Your task to perform on an android device: Go to settings Image 0: 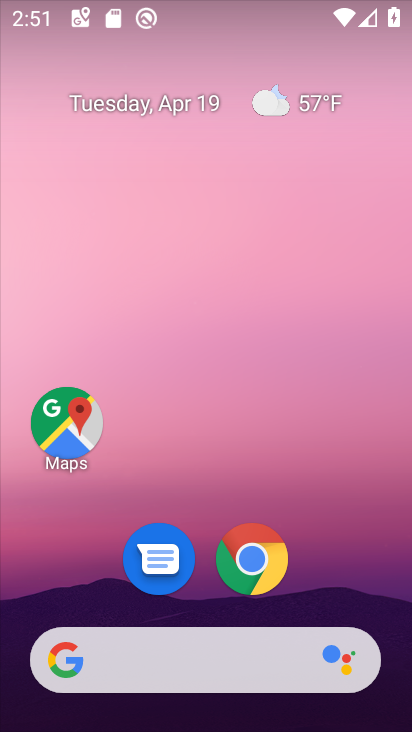
Step 0: press home button
Your task to perform on an android device: Go to settings Image 1: 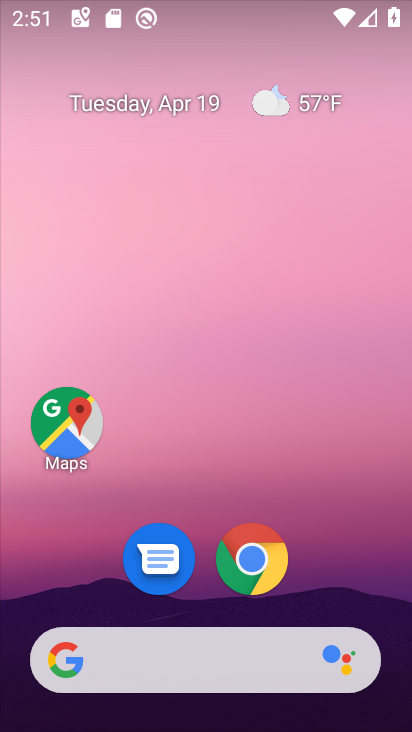
Step 1: drag from (214, 585) to (232, 102)
Your task to perform on an android device: Go to settings Image 2: 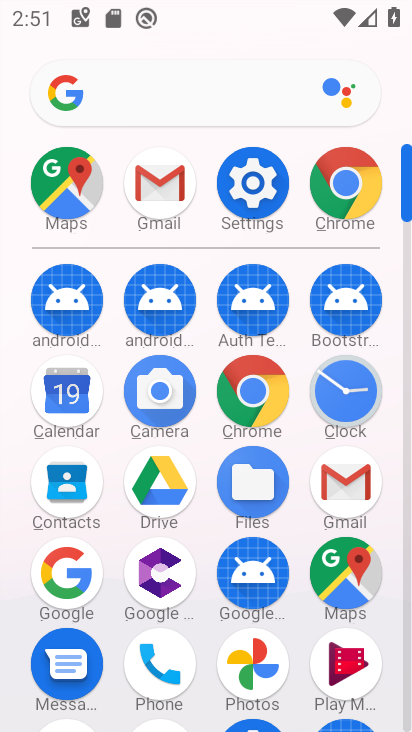
Step 2: click (248, 174)
Your task to perform on an android device: Go to settings Image 3: 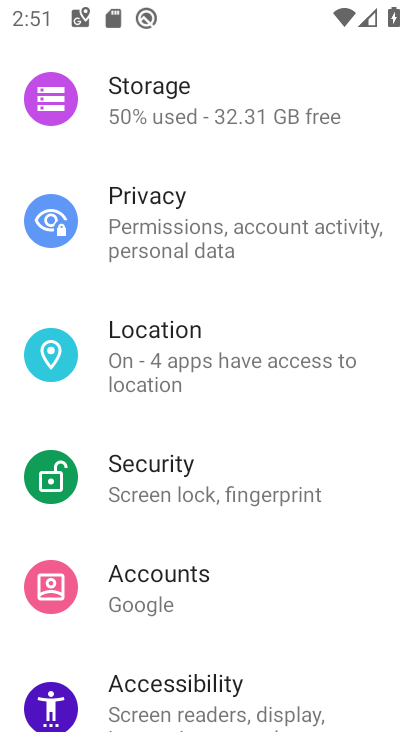
Step 3: task complete